Your task to perform on an android device: Look up the best rated drill on Lowes. Image 0: 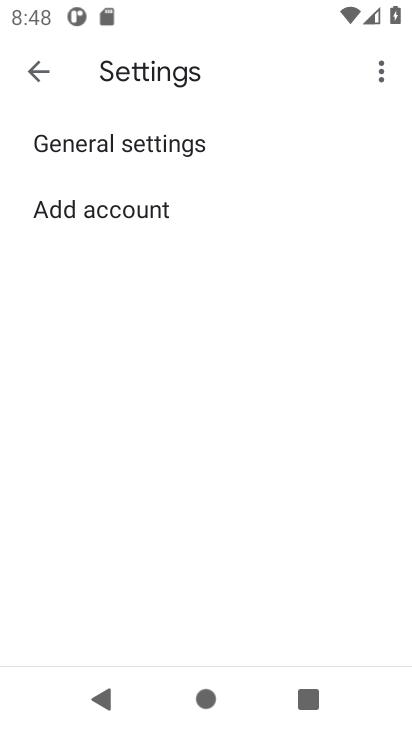
Step 0: press home button
Your task to perform on an android device: Look up the best rated drill on Lowes. Image 1: 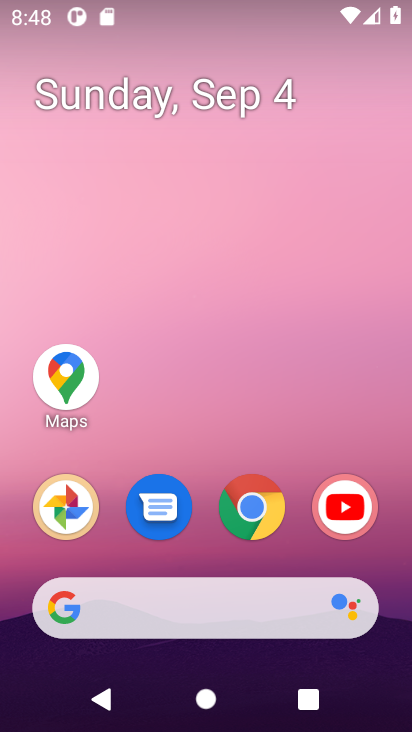
Step 1: click (250, 500)
Your task to perform on an android device: Look up the best rated drill on Lowes. Image 2: 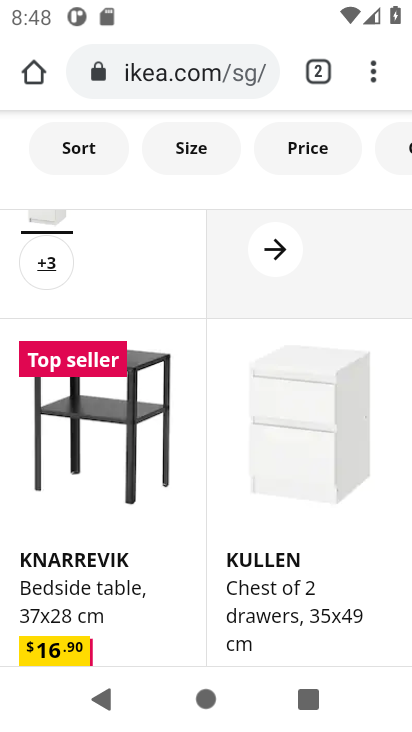
Step 2: click (166, 50)
Your task to perform on an android device: Look up the best rated drill on Lowes. Image 3: 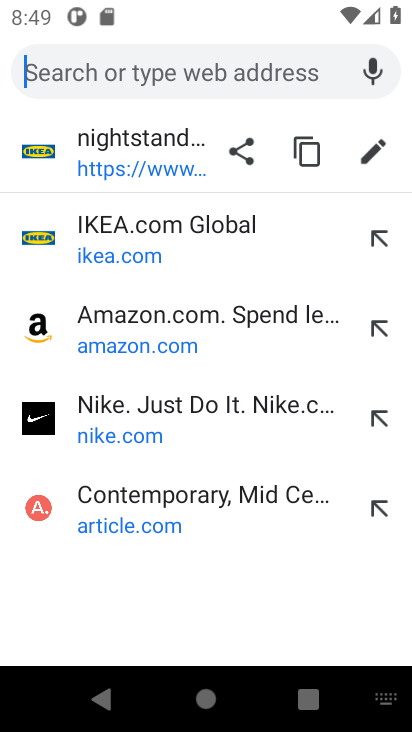
Step 3: type " Lowes"
Your task to perform on an android device: Look up the best rated drill on Lowes. Image 4: 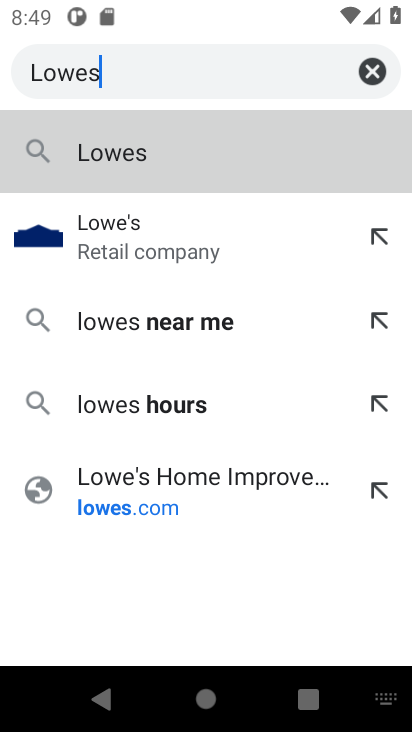
Step 4: click (90, 229)
Your task to perform on an android device: Look up the best rated drill on Lowes. Image 5: 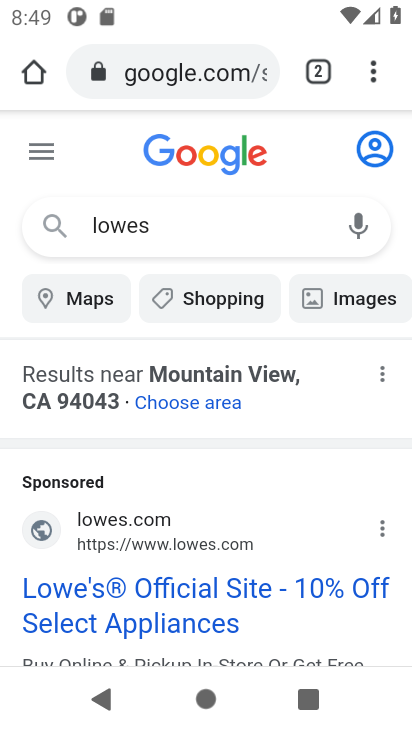
Step 5: click (145, 601)
Your task to perform on an android device: Look up the best rated drill on Lowes. Image 6: 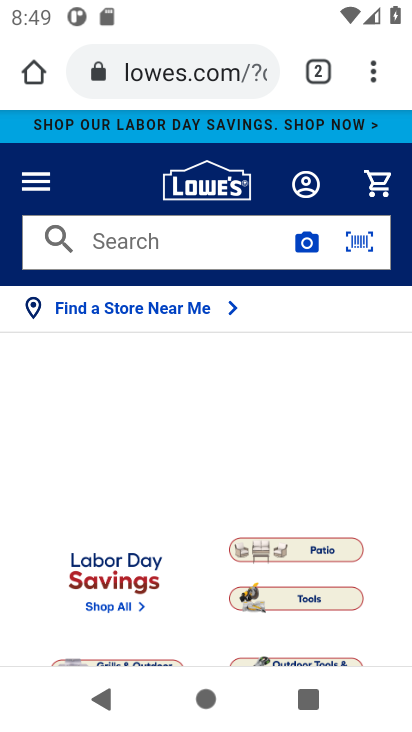
Step 6: click (126, 230)
Your task to perform on an android device: Look up the best rated drill on Lowes. Image 7: 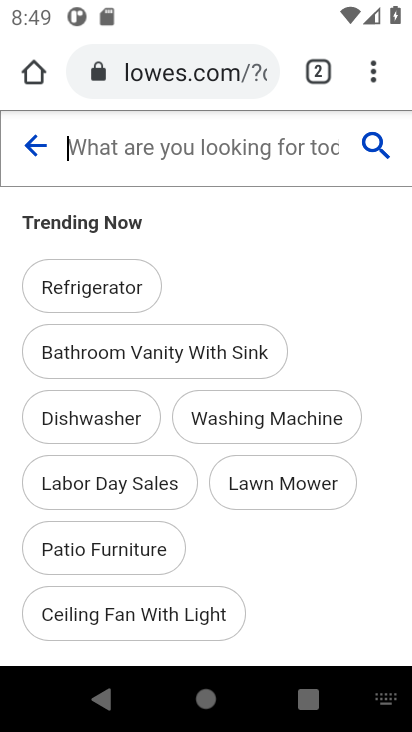
Step 7: type "drill"
Your task to perform on an android device: Look up the best rated drill on Lowes. Image 8: 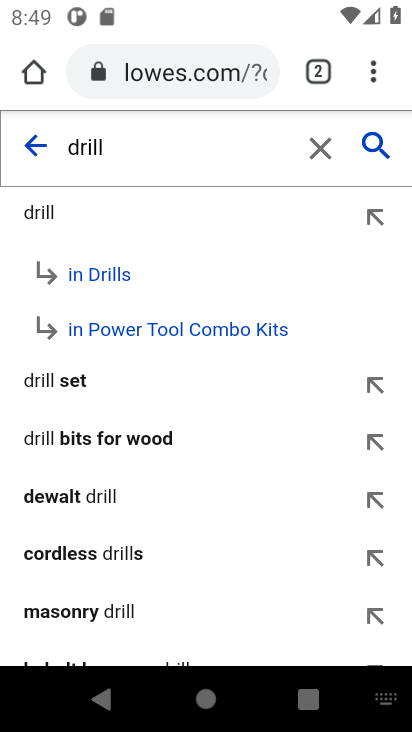
Step 8: click (372, 138)
Your task to perform on an android device: Look up the best rated drill on Lowes. Image 9: 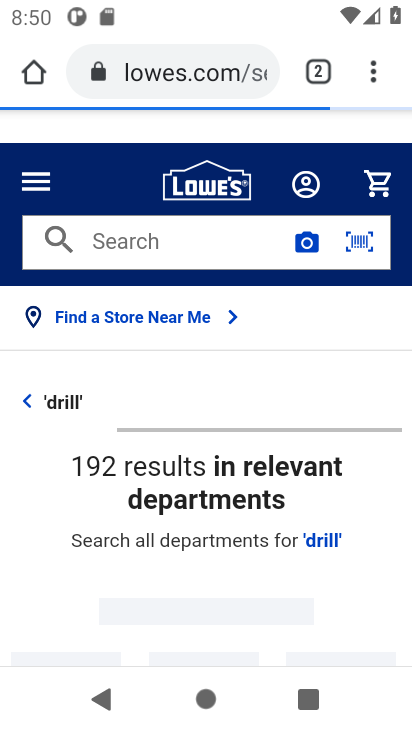
Step 9: drag from (172, 592) to (182, 214)
Your task to perform on an android device: Look up the best rated drill on Lowes. Image 10: 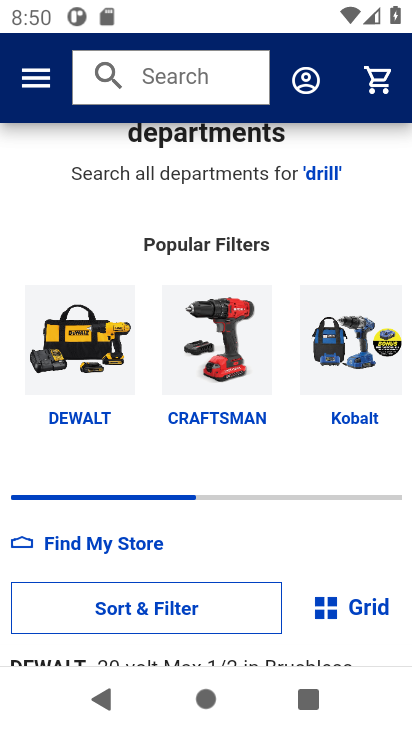
Step 10: drag from (177, 540) to (186, 225)
Your task to perform on an android device: Look up the best rated drill on Lowes. Image 11: 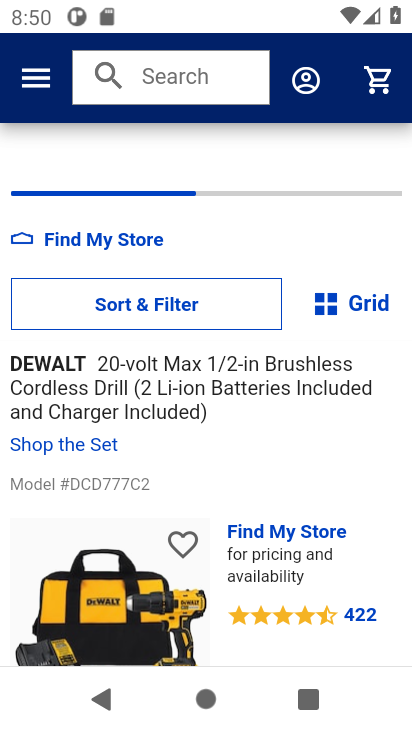
Step 11: drag from (208, 508) to (210, 465)
Your task to perform on an android device: Look up the best rated drill on Lowes. Image 12: 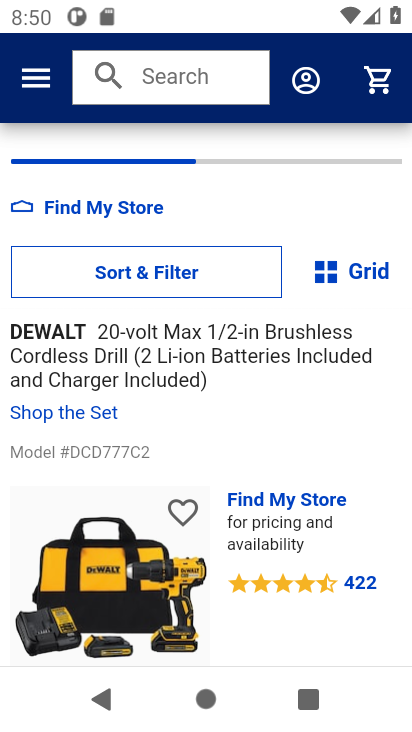
Step 12: click (159, 278)
Your task to perform on an android device: Look up the best rated drill on Lowes. Image 13: 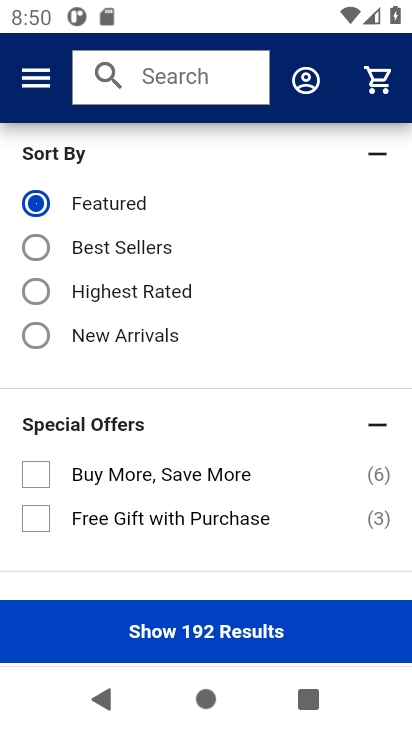
Step 13: click (34, 288)
Your task to perform on an android device: Look up the best rated drill on Lowes. Image 14: 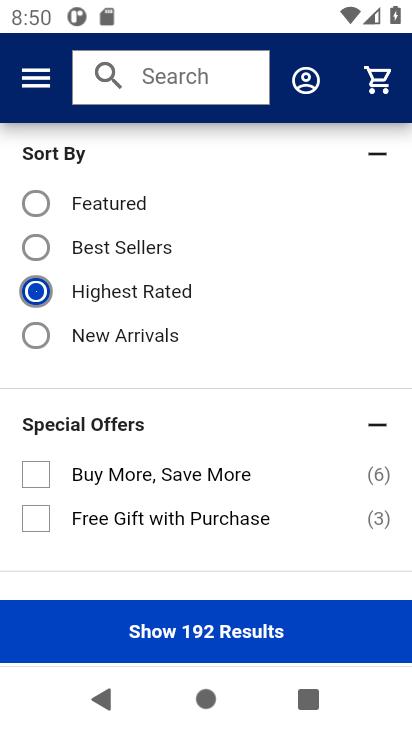
Step 14: click (176, 632)
Your task to perform on an android device: Look up the best rated drill on Lowes. Image 15: 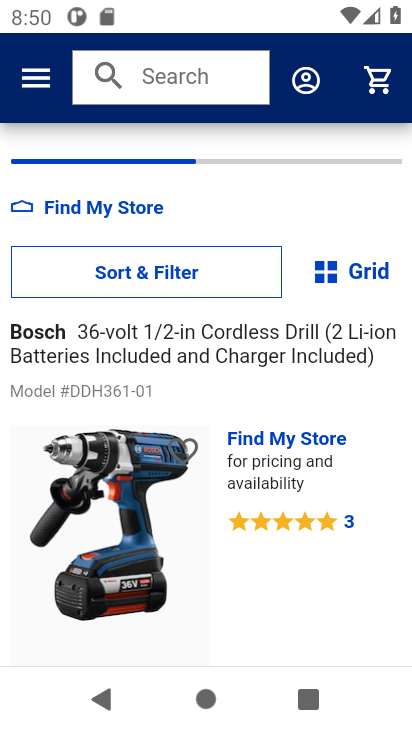
Step 15: drag from (224, 616) to (226, 307)
Your task to perform on an android device: Look up the best rated drill on Lowes. Image 16: 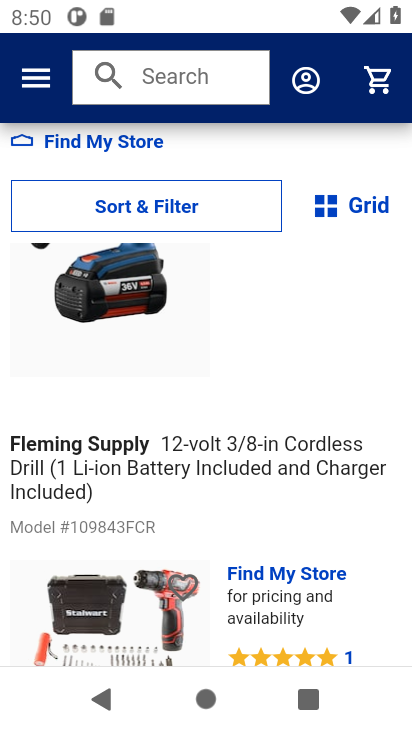
Step 16: drag from (212, 617) to (215, 313)
Your task to perform on an android device: Look up the best rated drill on Lowes. Image 17: 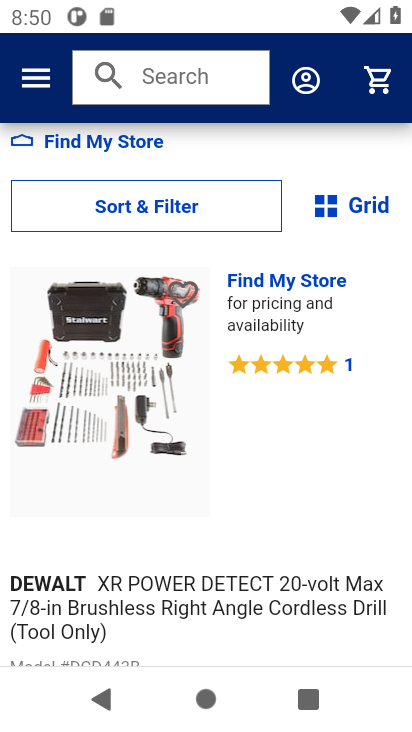
Step 17: click (204, 302)
Your task to perform on an android device: Look up the best rated drill on Lowes. Image 18: 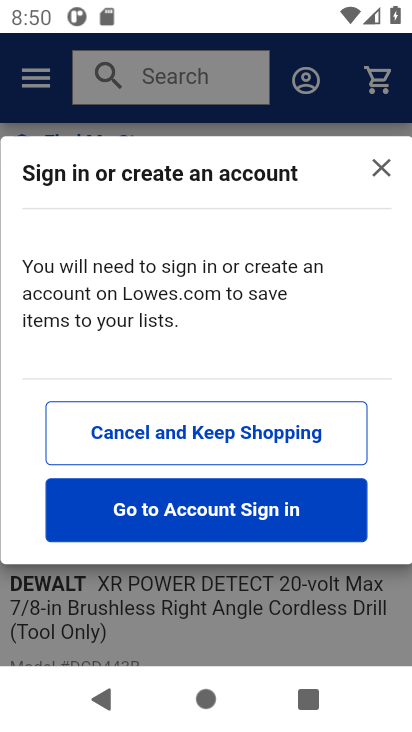
Step 18: click (375, 164)
Your task to perform on an android device: Look up the best rated drill on Lowes. Image 19: 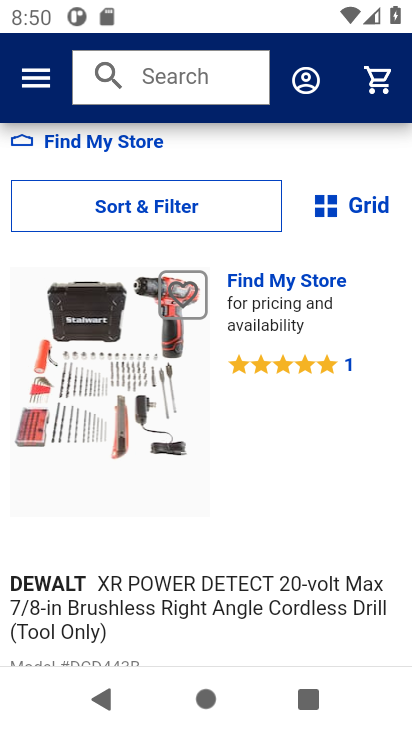
Step 19: task complete